Your task to perform on an android device: Open settings Image 0: 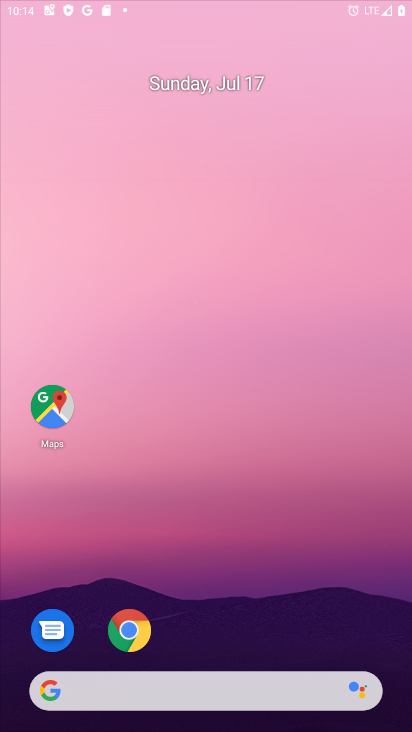
Step 0: press home button
Your task to perform on an android device: Open settings Image 1: 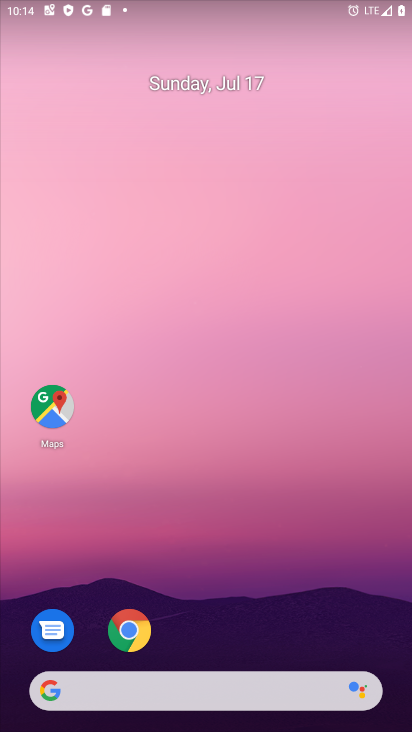
Step 1: drag from (217, 652) to (206, 107)
Your task to perform on an android device: Open settings Image 2: 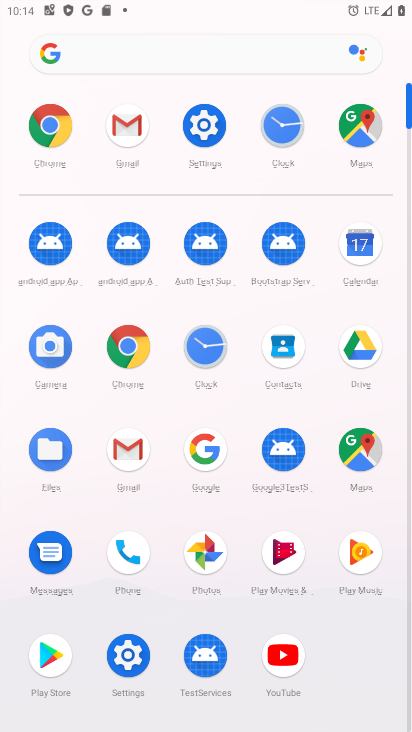
Step 2: click (202, 118)
Your task to perform on an android device: Open settings Image 3: 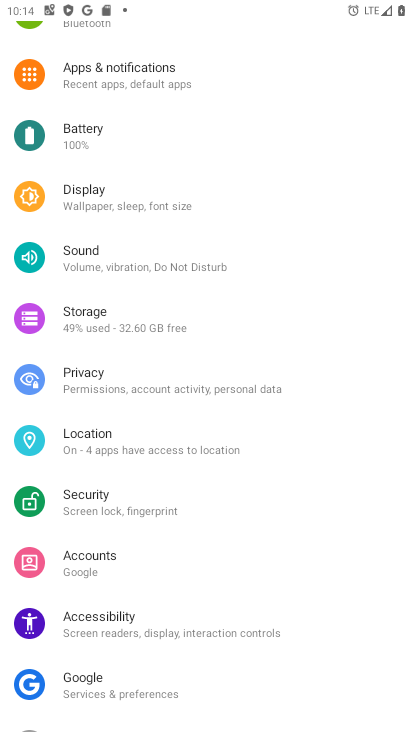
Step 3: task complete